Your task to perform on an android device: open a bookmark in the chrome app Image 0: 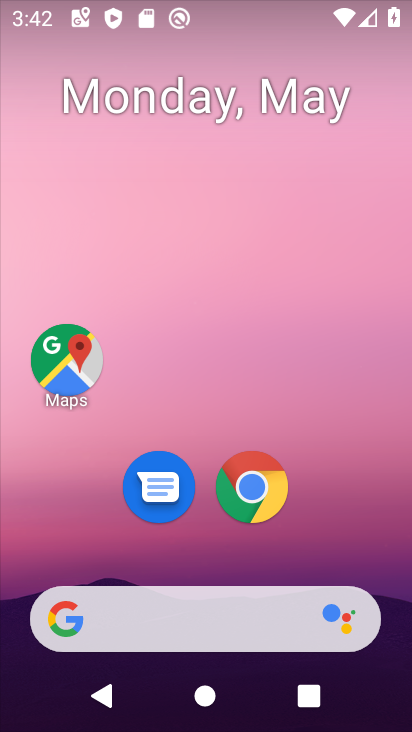
Step 0: click (246, 489)
Your task to perform on an android device: open a bookmark in the chrome app Image 1: 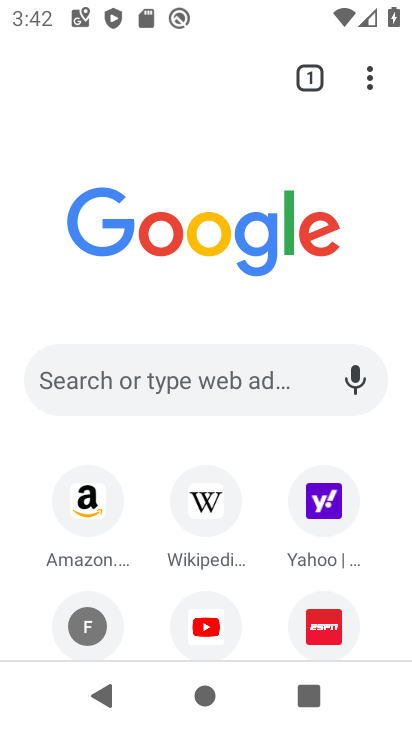
Step 1: click (372, 77)
Your task to perform on an android device: open a bookmark in the chrome app Image 2: 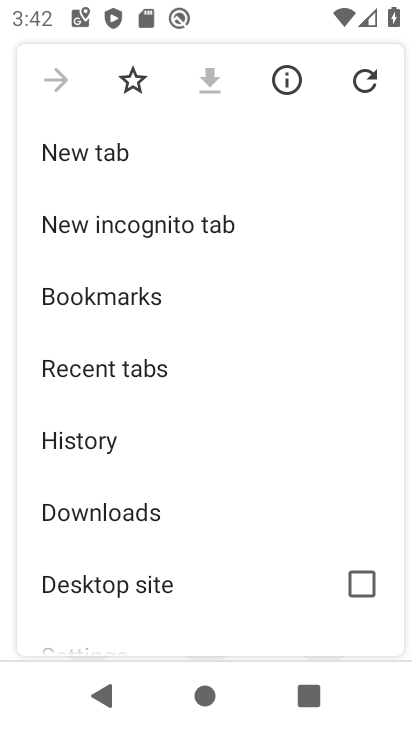
Step 2: click (107, 295)
Your task to perform on an android device: open a bookmark in the chrome app Image 3: 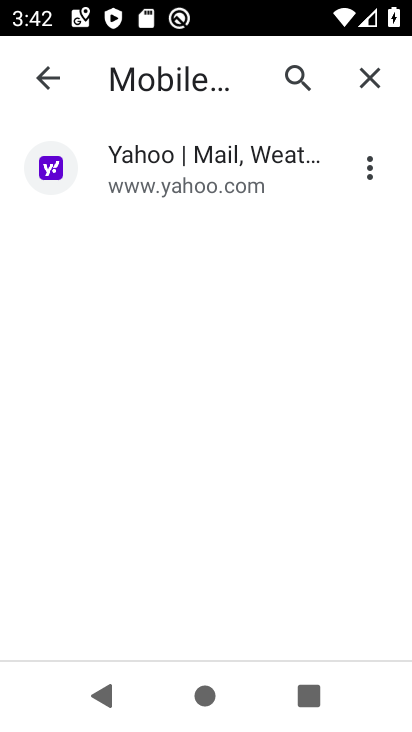
Step 3: task complete